Your task to perform on an android device: Do I have any events this weekend? Image 0: 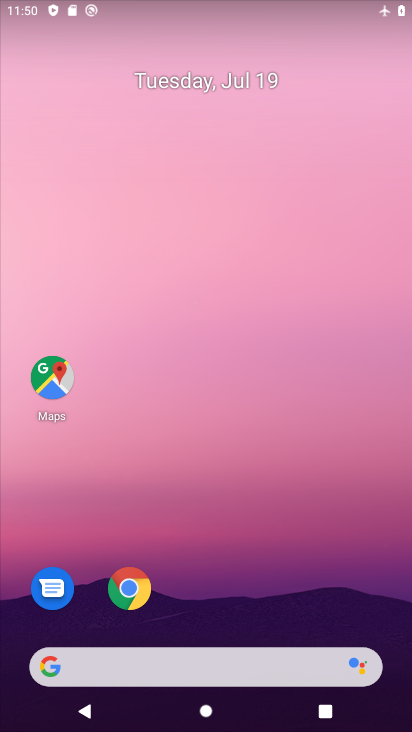
Step 0: drag from (211, 599) to (239, 245)
Your task to perform on an android device: Do I have any events this weekend? Image 1: 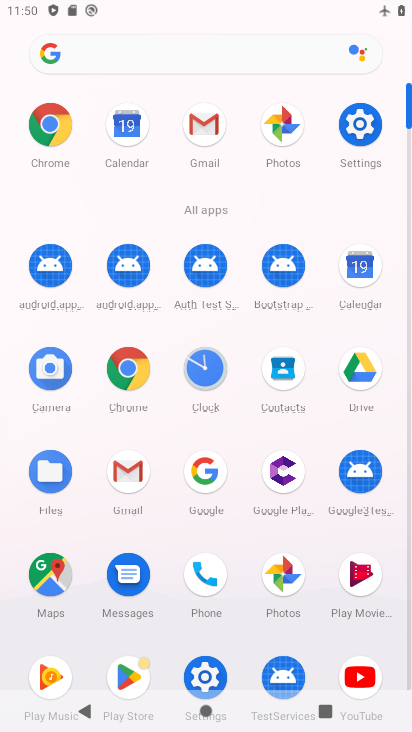
Step 1: click (122, 125)
Your task to perform on an android device: Do I have any events this weekend? Image 2: 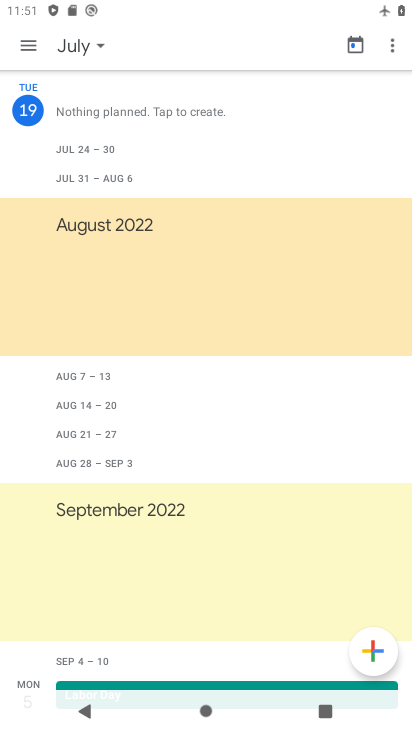
Step 2: click (21, 45)
Your task to perform on an android device: Do I have any events this weekend? Image 3: 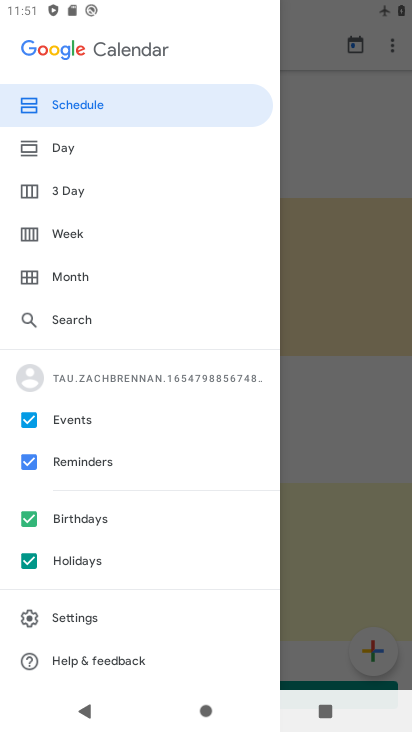
Step 3: click (69, 230)
Your task to perform on an android device: Do I have any events this weekend? Image 4: 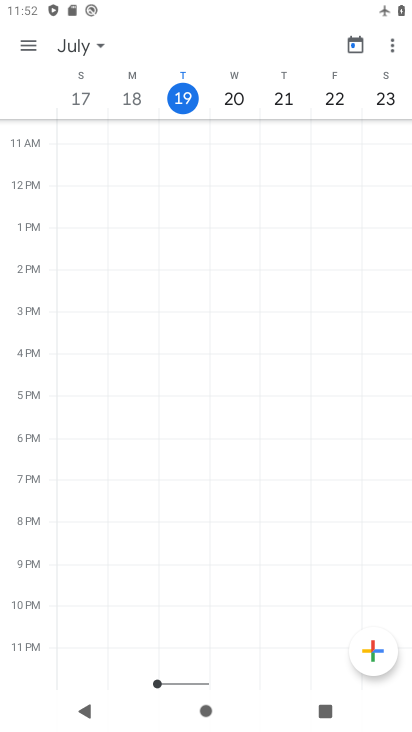
Step 4: task complete